Your task to perform on an android device: open chrome and create a bookmark for the current page Image 0: 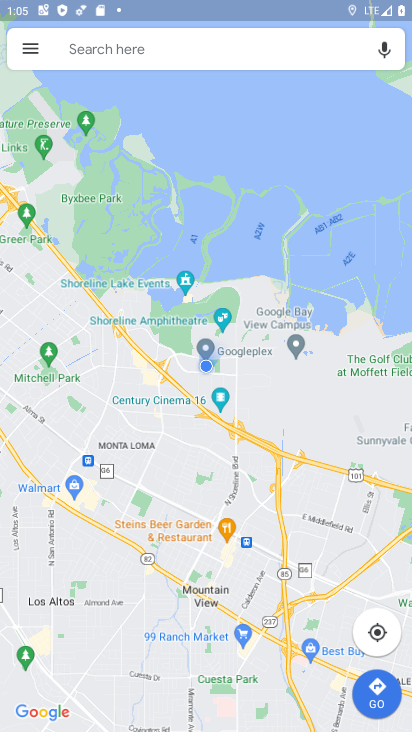
Step 0: press home button
Your task to perform on an android device: open chrome and create a bookmark for the current page Image 1: 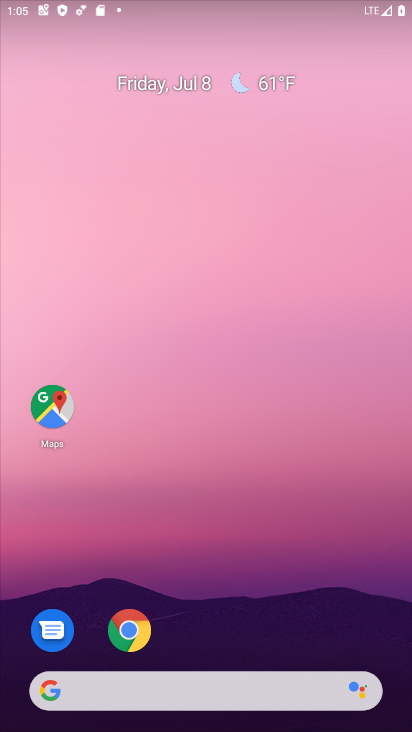
Step 1: drag from (391, 682) to (225, 45)
Your task to perform on an android device: open chrome and create a bookmark for the current page Image 2: 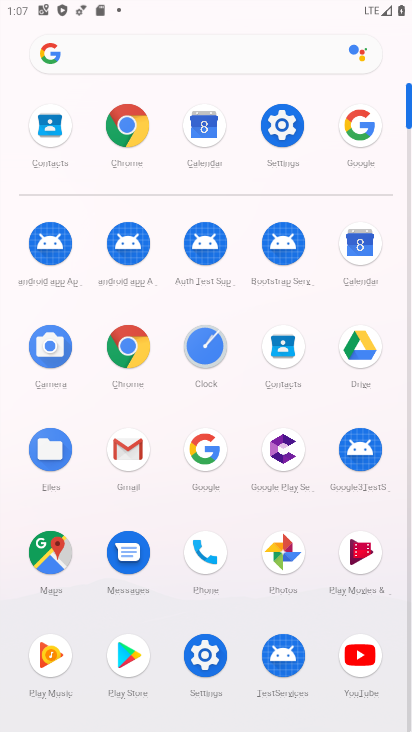
Step 2: click (130, 360)
Your task to perform on an android device: open chrome and create a bookmark for the current page Image 3: 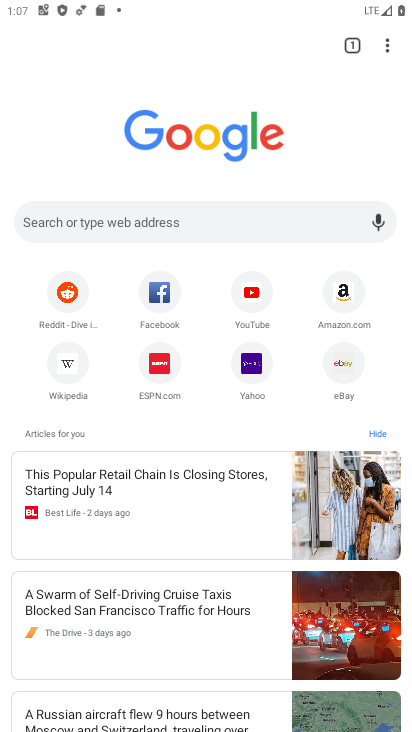
Step 3: click (390, 37)
Your task to perform on an android device: open chrome and create a bookmark for the current page Image 4: 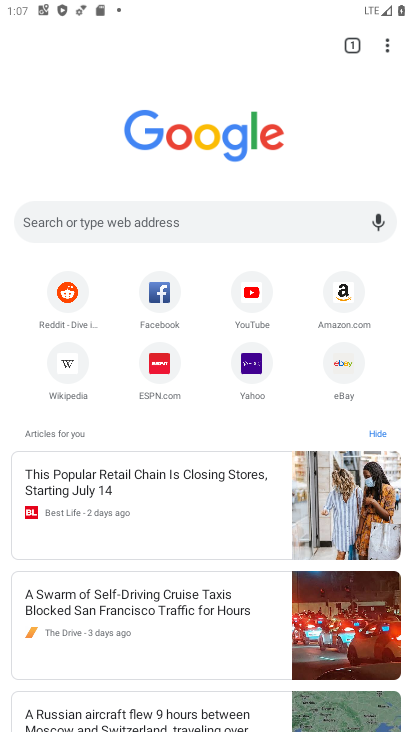
Step 4: click (387, 38)
Your task to perform on an android device: open chrome and create a bookmark for the current page Image 5: 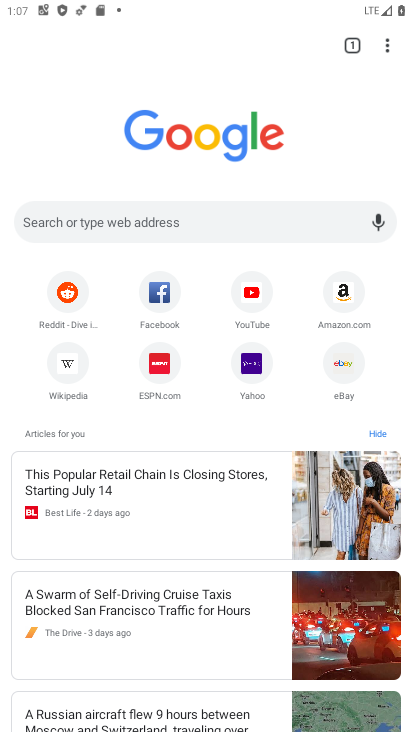
Step 5: click (387, 38)
Your task to perform on an android device: open chrome and create a bookmark for the current page Image 6: 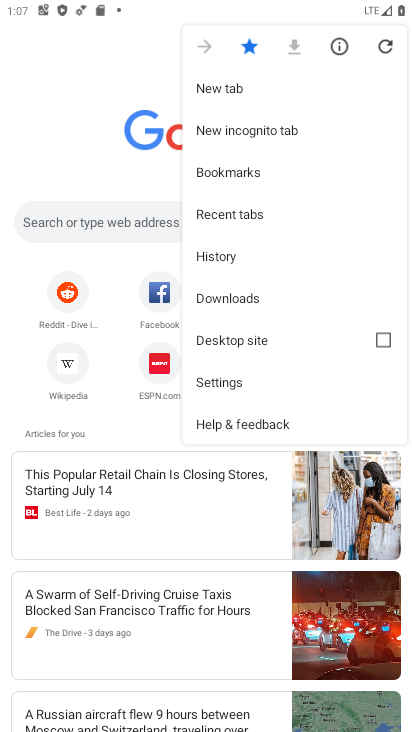
Step 6: task complete